Your task to perform on an android device: stop showing notifications on the lock screen Image 0: 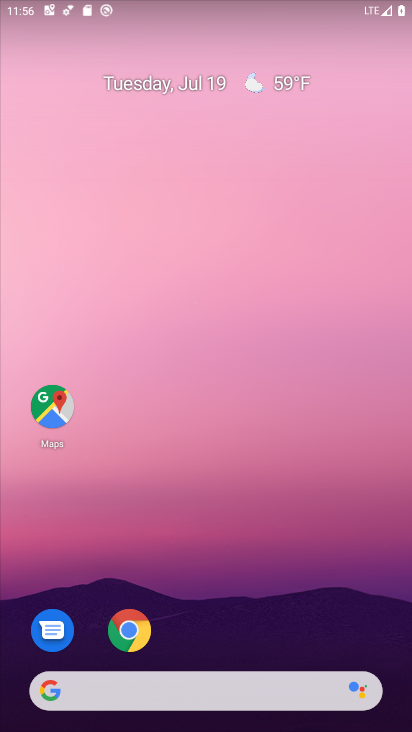
Step 0: drag from (378, 632) to (332, 193)
Your task to perform on an android device: stop showing notifications on the lock screen Image 1: 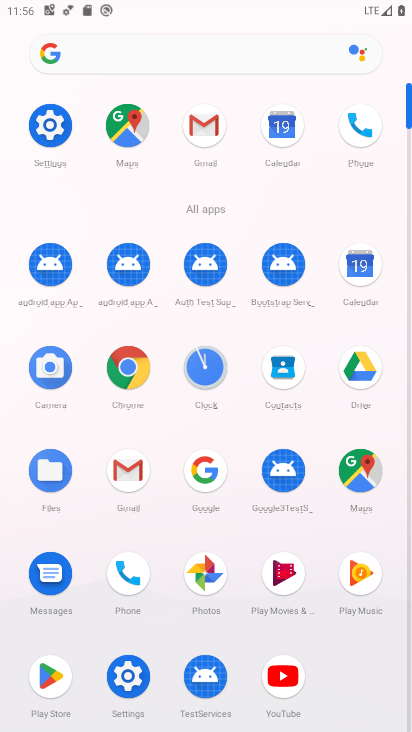
Step 1: click (128, 674)
Your task to perform on an android device: stop showing notifications on the lock screen Image 2: 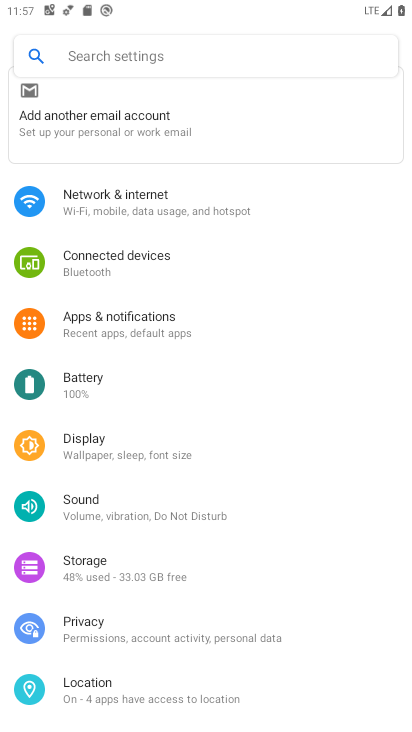
Step 2: click (102, 316)
Your task to perform on an android device: stop showing notifications on the lock screen Image 3: 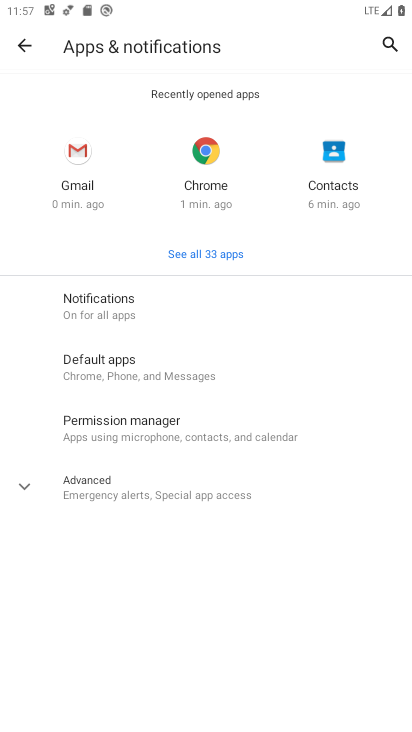
Step 3: click (92, 297)
Your task to perform on an android device: stop showing notifications on the lock screen Image 4: 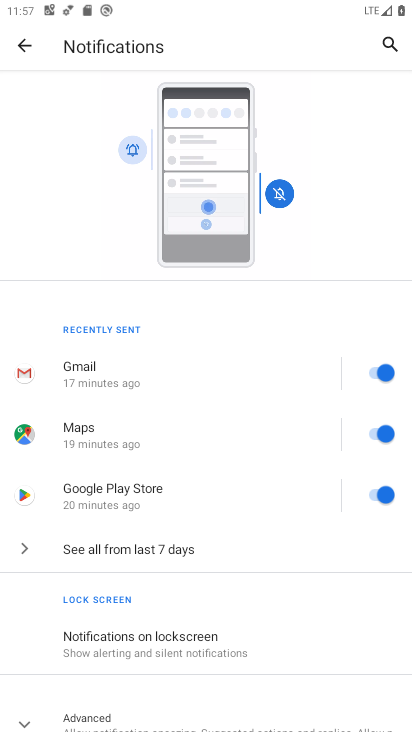
Step 4: drag from (224, 636) to (260, 272)
Your task to perform on an android device: stop showing notifications on the lock screen Image 5: 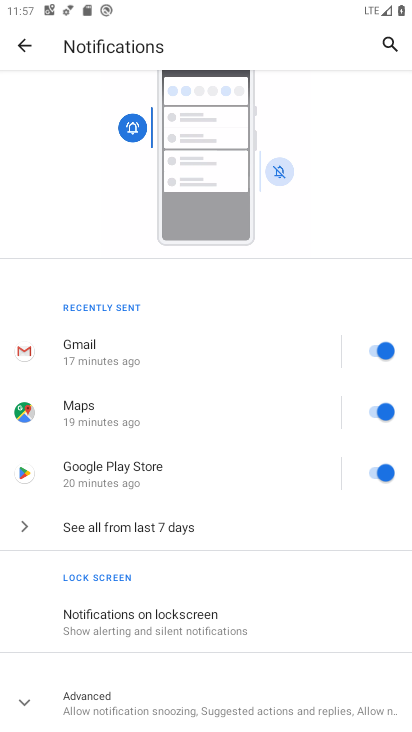
Step 5: click (136, 621)
Your task to perform on an android device: stop showing notifications on the lock screen Image 6: 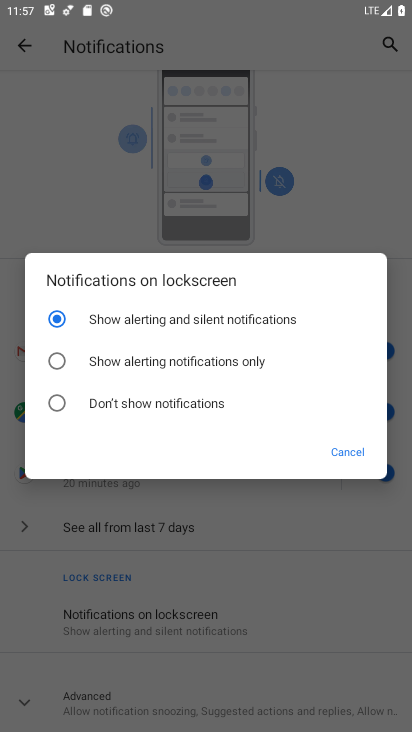
Step 6: click (59, 394)
Your task to perform on an android device: stop showing notifications on the lock screen Image 7: 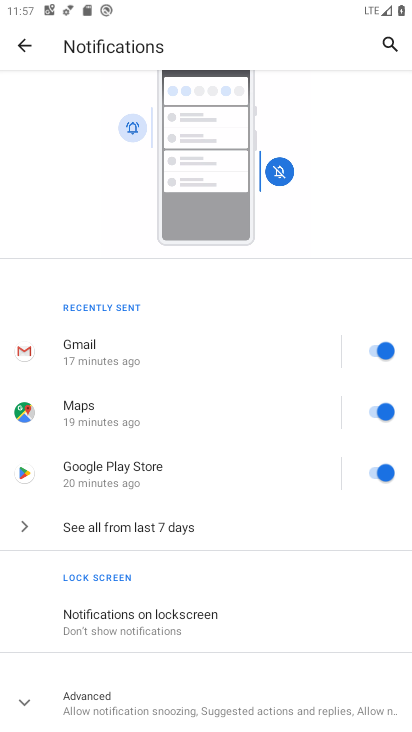
Step 7: task complete